Your task to perform on an android device: Open Chrome and go to the settings page Image 0: 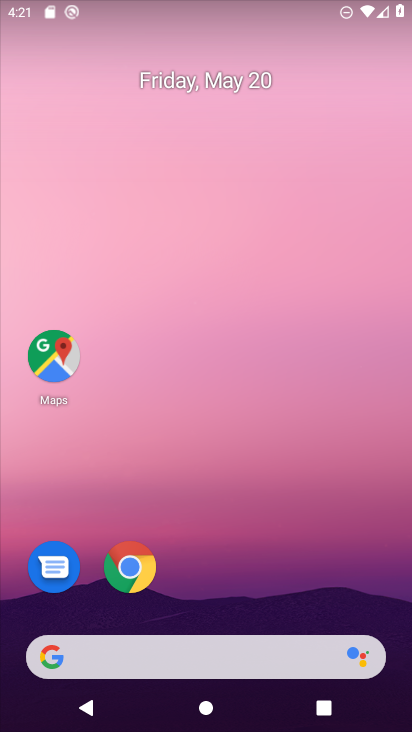
Step 0: click (139, 568)
Your task to perform on an android device: Open Chrome and go to the settings page Image 1: 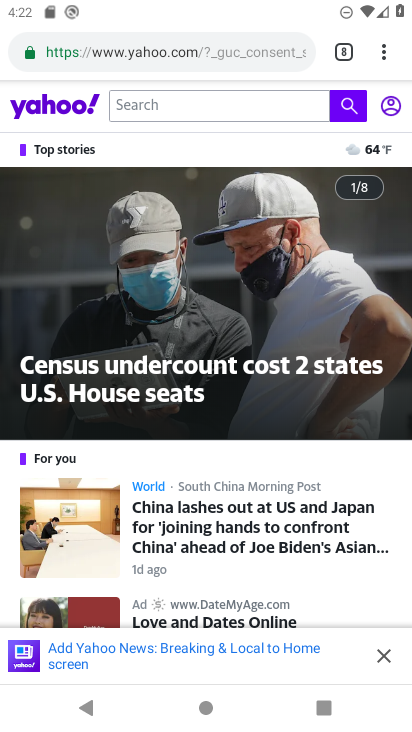
Step 1: click (386, 58)
Your task to perform on an android device: Open Chrome and go to the settings page Image 2: 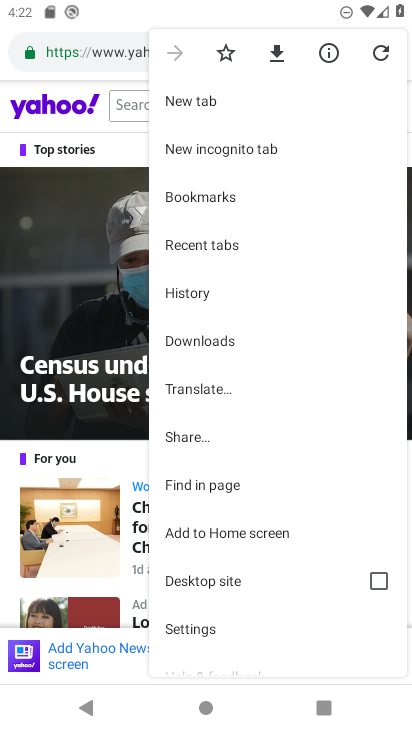
Step 2: click (198, 631)
Your task to perform on an android device: Open Chrome and go to the settings page Image 3: 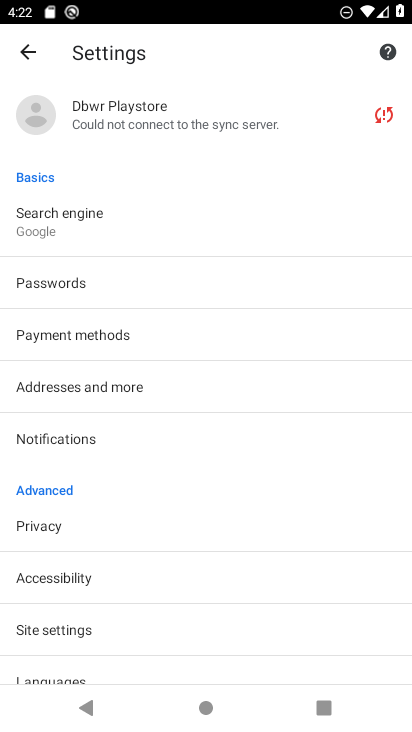
Step 3: task complete